Your task to perform on an android device: Open eBay Image 0: 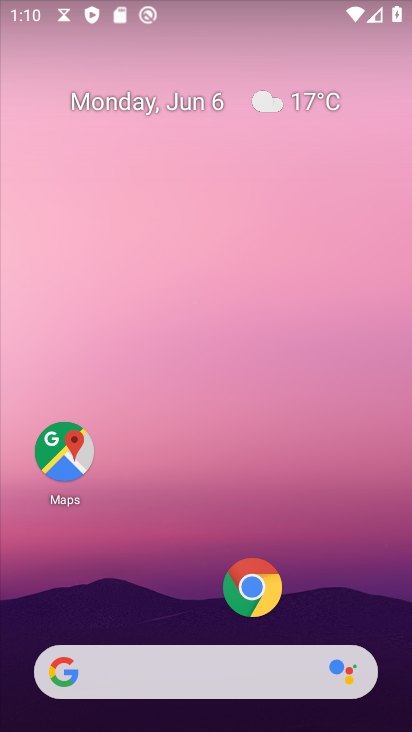
Step 0: click (258, 566)
Your task to perform on an android device: Open eBay Image 1: 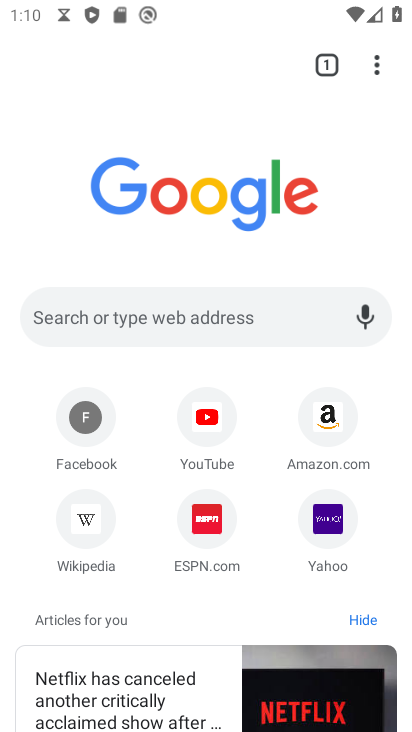
Step 1: click (188, 326)
Your task to perform on an android device: Open eBay Image 2: 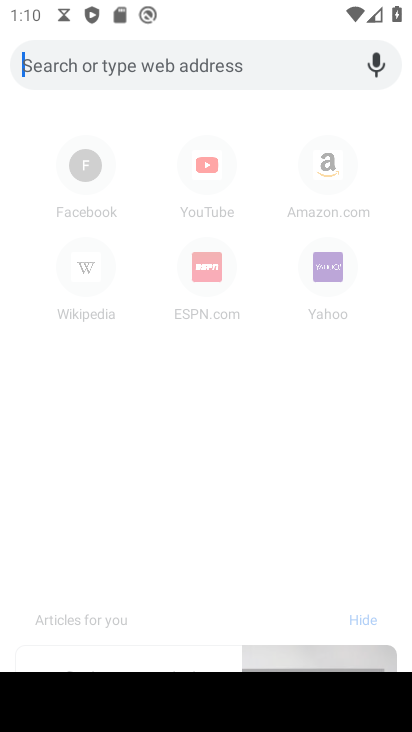
Step 2: type "eBay"
Your task to perform on an android device: Open eBay Image 3: 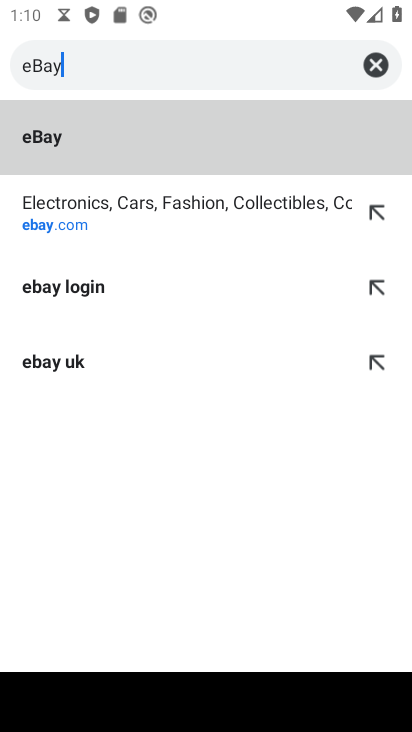
Step 3: click (137, 146)
Your task to perform on an android device: Open eBay Image 4: 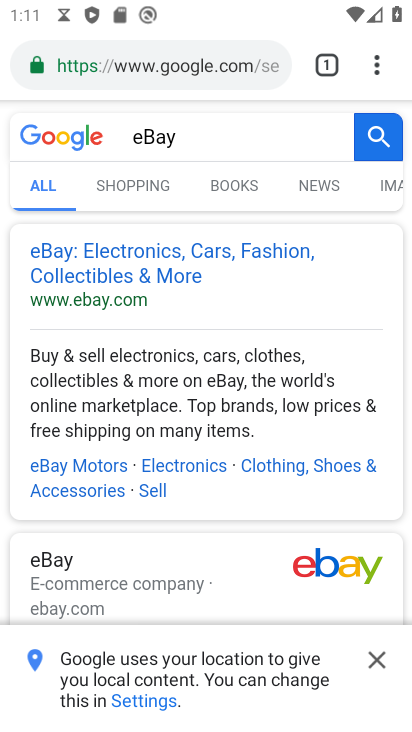
Step 4: task complete